Your task to perform on an android device: See recent photos Image 0: 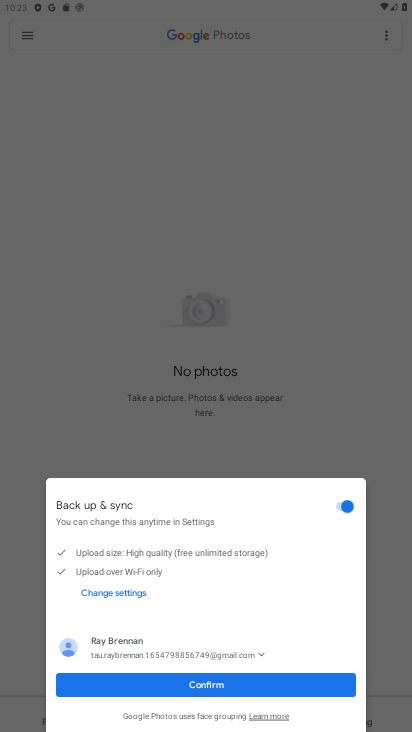
Step 0: press home button
Your task to perform on an android device: See recent photos Image 1: 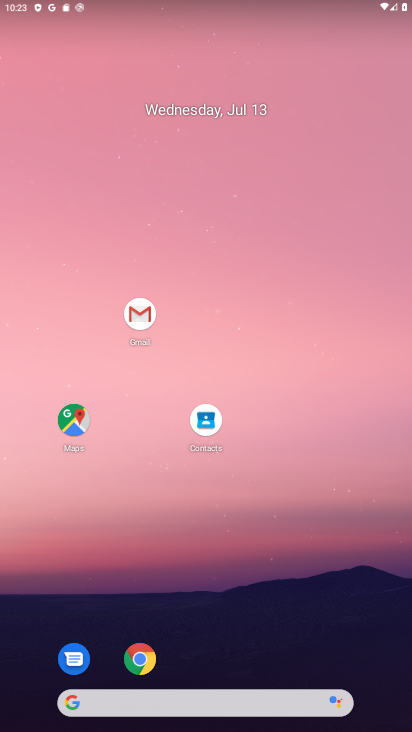
Step 1: drag from (242, 598) to (271, 114)
Your task to perform on an android device: See recent photos Image 2: 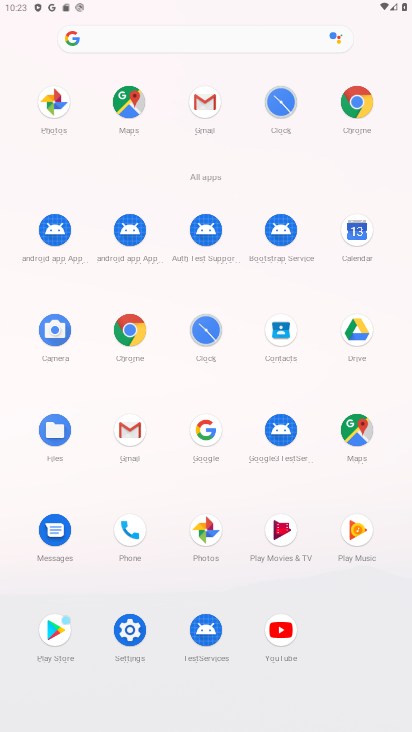
Step 2: drag from (206, 535) to (142, 411)
Your task to perform on an android device: See recent photos Image 3: 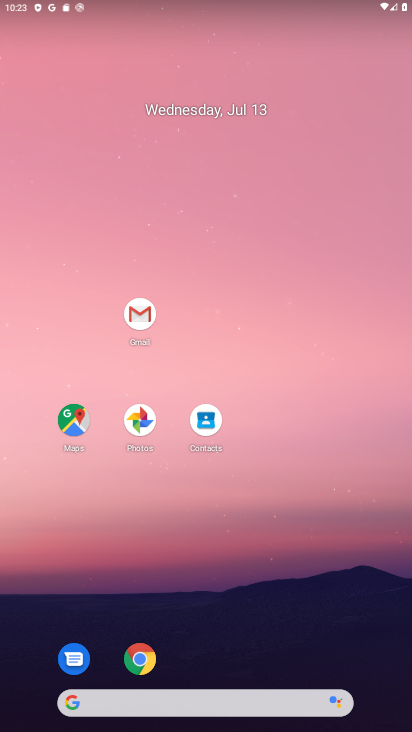
Step 3: click (142, 423)
Your task to perform on an android device: See recent photos Image 4: 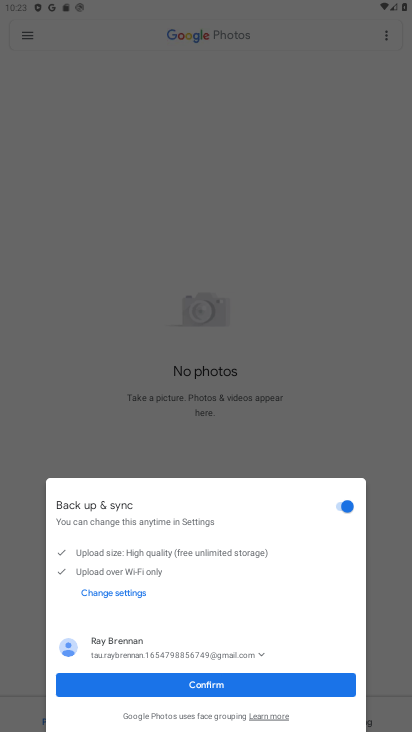
Step 4: click (265, 682)
Your task to perform on an android device: See recent photos Image 5: 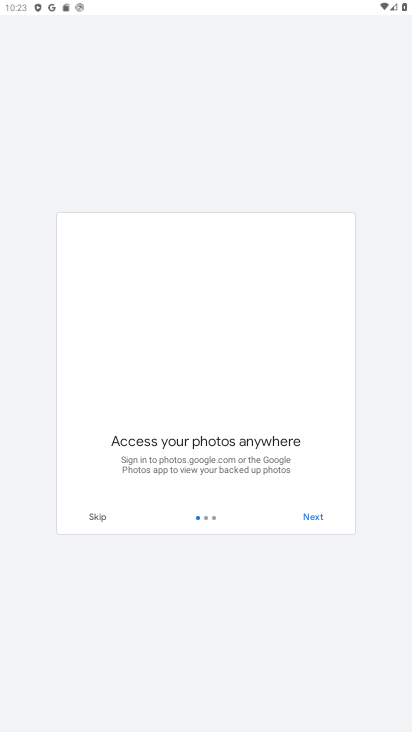
Step 5: click (312, 524)
Your task to perform on an android device: See recent photos Image 6: 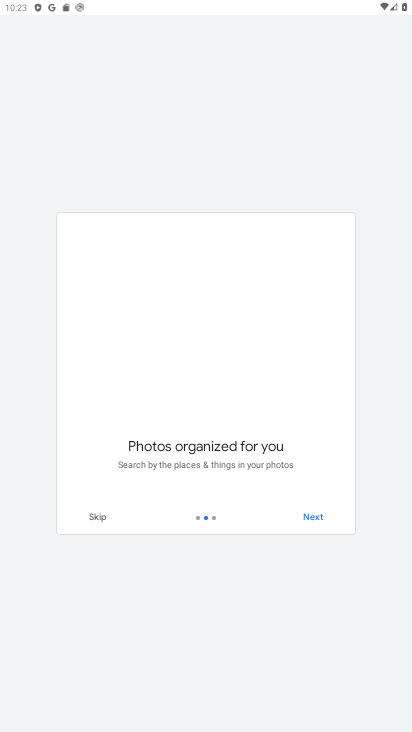
Step 6: click (312, 524)
Your task to perform on an android device: See recent photos Image 7: 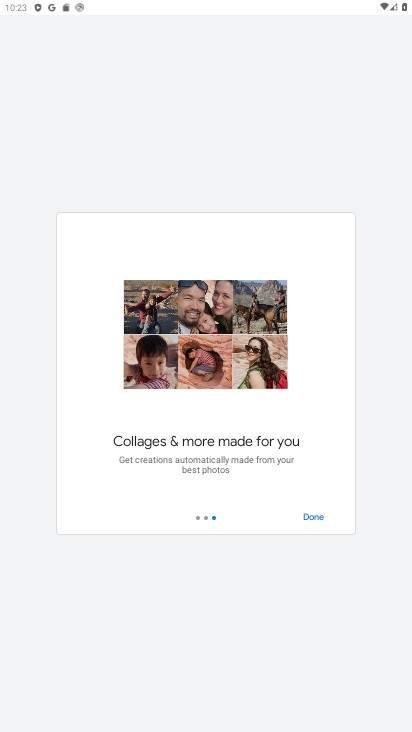
Step 7: click (312, 524)
Your task to perform on an android device: See recent photos Image 8: 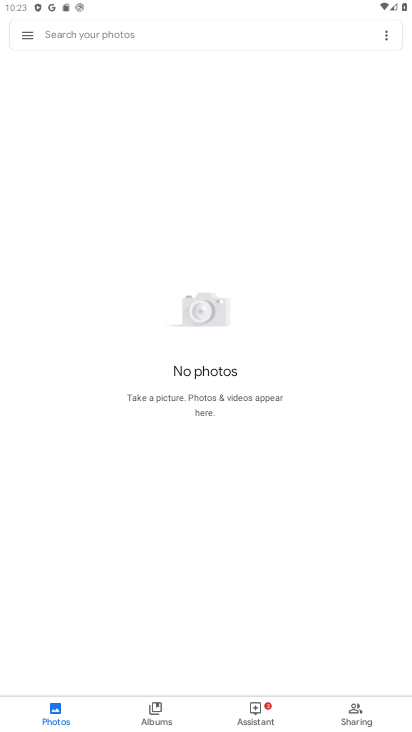
Step 8: task complete